Your task to perform on an android device: open chrome privacy settings Image 0: 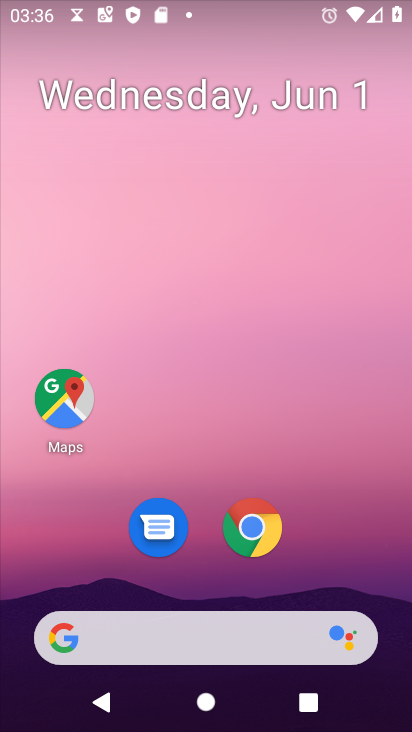
Step 0: drag from (336, 566) to (246, 121)
Your task to perform on an android device: open chrome privacy settings Image 1: 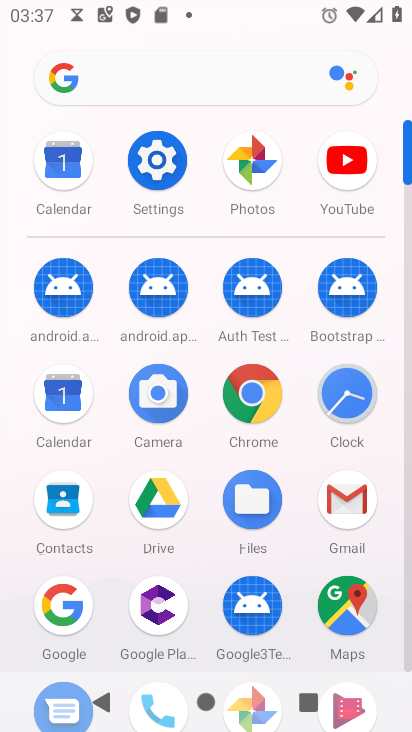
Step 1: click (251, 393)
Your task to perform on an android device: open chrome privacy settings Image 2: 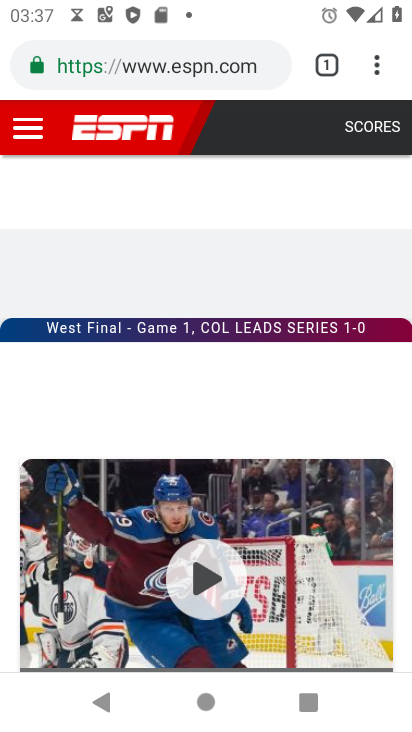
Step 2: click (376, 62)
Your task to perform on an android device: open chrome privacy settings Image 3: 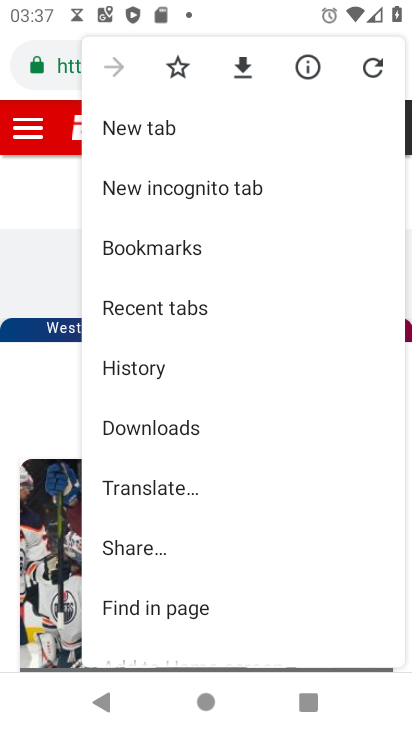
Step 3: drag from (147, 408) to (150, 334)
Your task to perform on an android device: open chrome privacy settings Image 4: 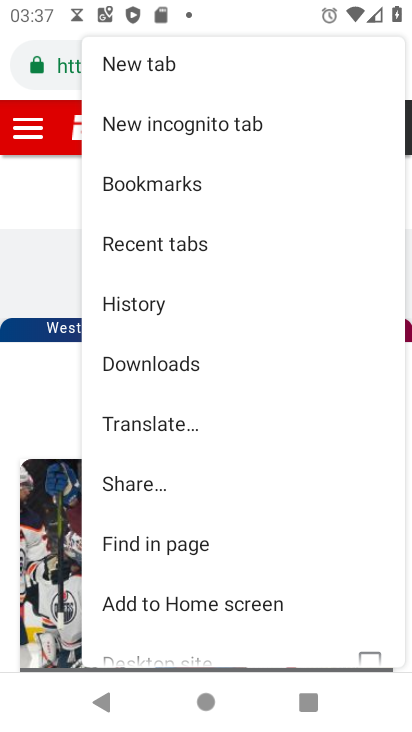
Step 4: drag from (136, 440) to (174, 365)
Your task to perform on an android device: open chrome privacy settings Image 5: 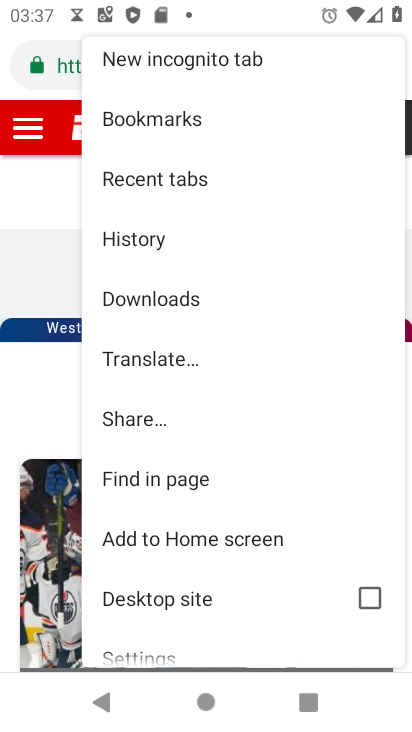
Step 5: drag from (145, 521) to (193, 409)
Your task to perform on an android device: open chrome privacy settings Image 6: 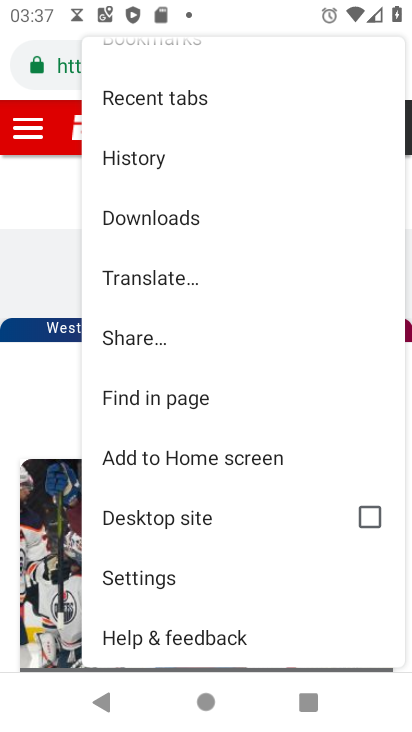
Step 6: click (149, 586)
Your task to perform on an android device: open chrome privacy settings Image 7: 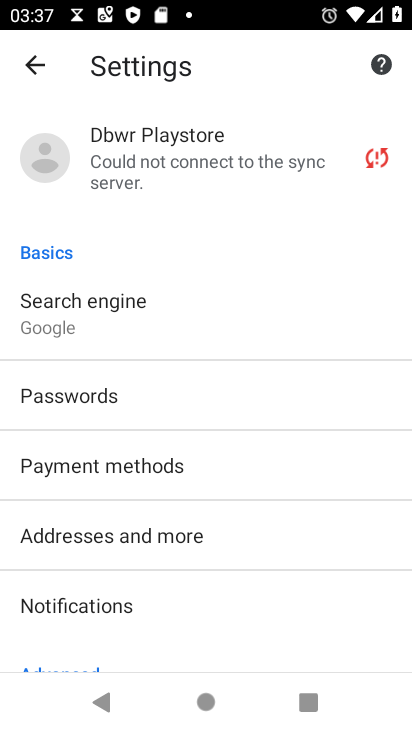
Step 7: drag from (104, 573) to (118, 436)
Your task to perform on an android device: open chrome privacy settings Image 8: 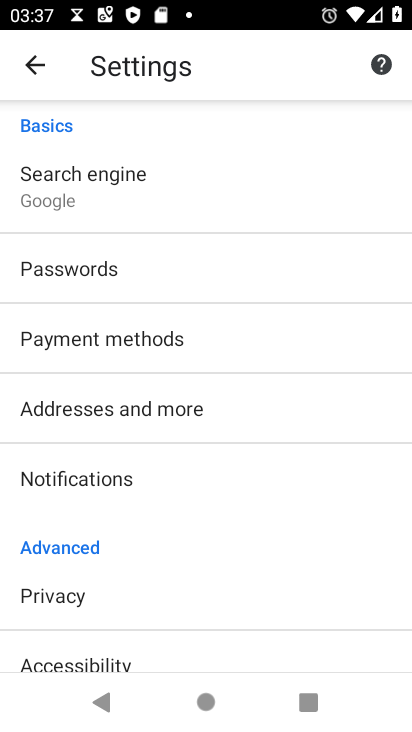
Step 8: click (50, 589)
Your task to perform on an android device: open chrome privacy settings Image 9: 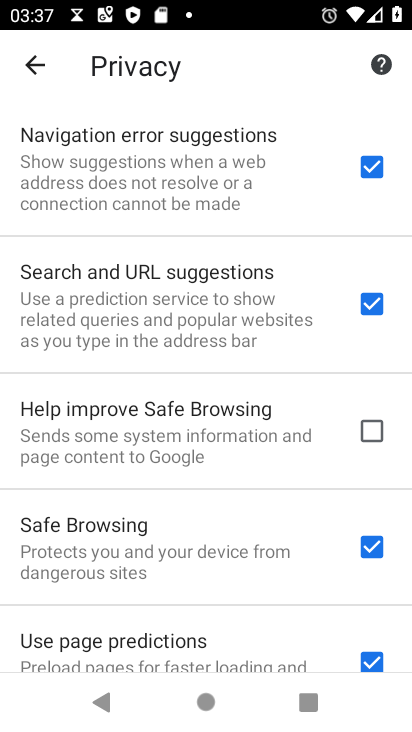
Step 9: task complete